Your task to perform on an android device: Go to notification settings Image 0: 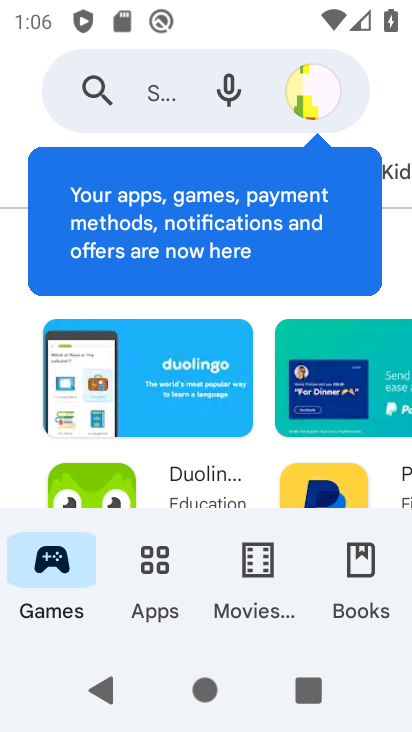
Step 0: press home button
Your task to perform on an android device: Go to notification settings Image 1: 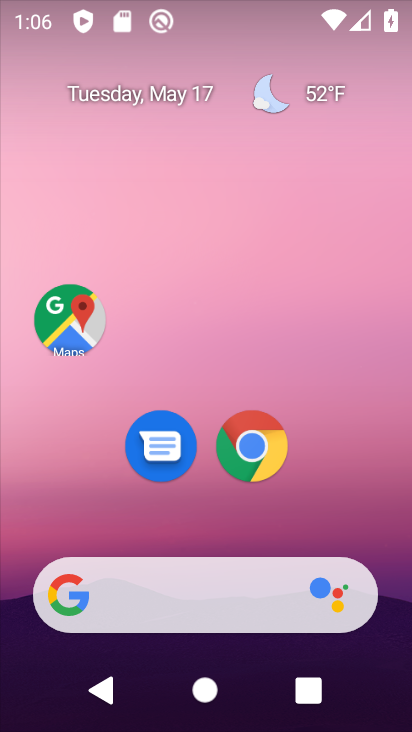
Step 1: drag from (363, 495) to (266, 6)
Your task to perform on an android device: Go to notification settings Image 2: 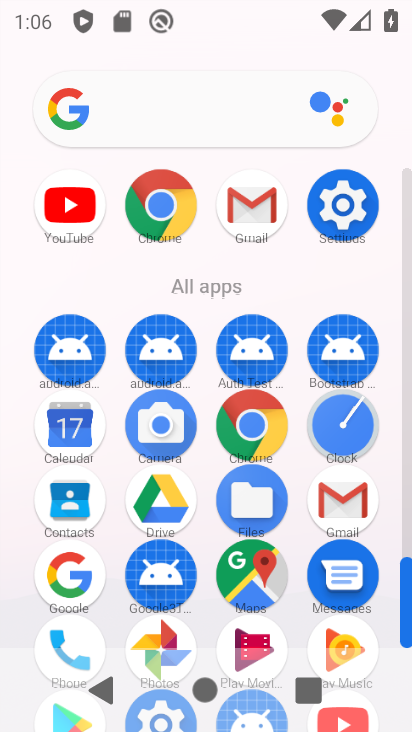
Step 2: click (337, 228)
Your task to perform on an android device: Go to notification settings Image 3: 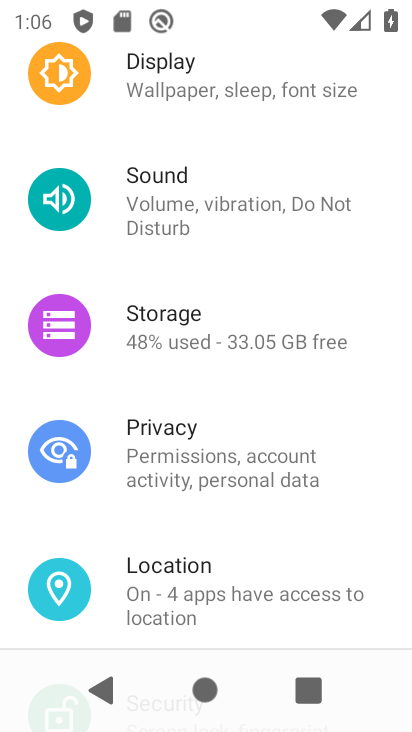
Step 3: drag from (274, 546) to (220, 265)
Your task to perform on an android device: Go to notification settings Image 4: 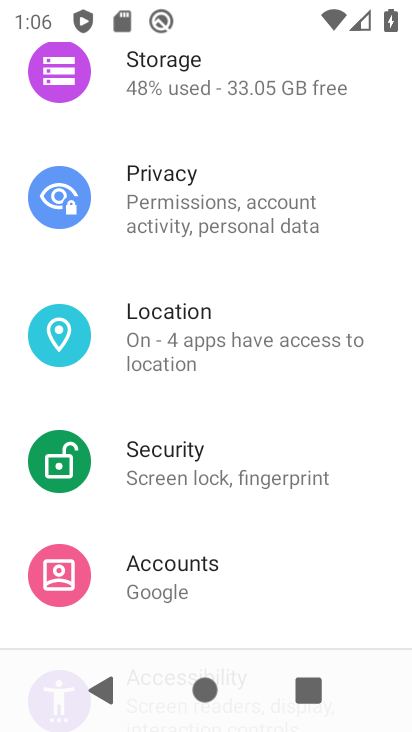
Step 4: drag from (195, 147) to (273, 705)
Your task to perform on an android device: Go to notification settings Image 5: 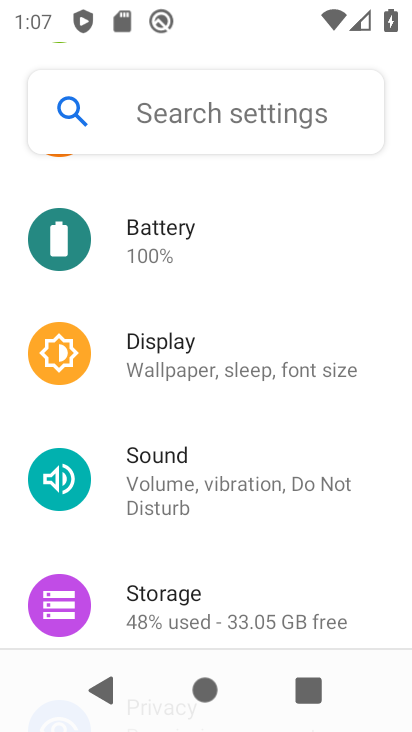
Step 5: drag from (174, 180) to (189, 541)
Your task to perform on an android device: Go to notification settings Image 6: 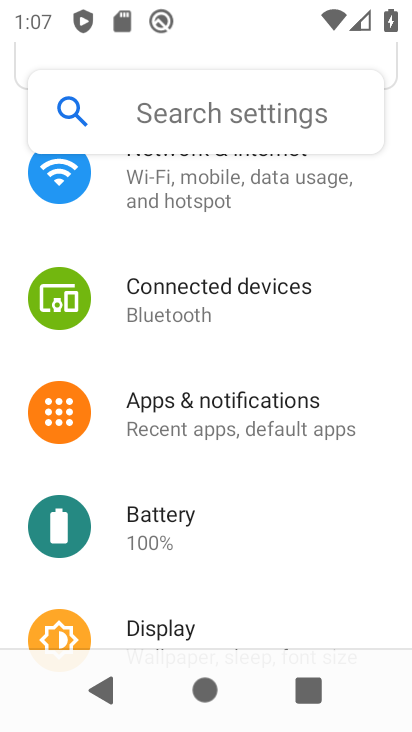
Step 6: click (152, 426)
Your task to perform on an android device: Go to notification settings Image 7: 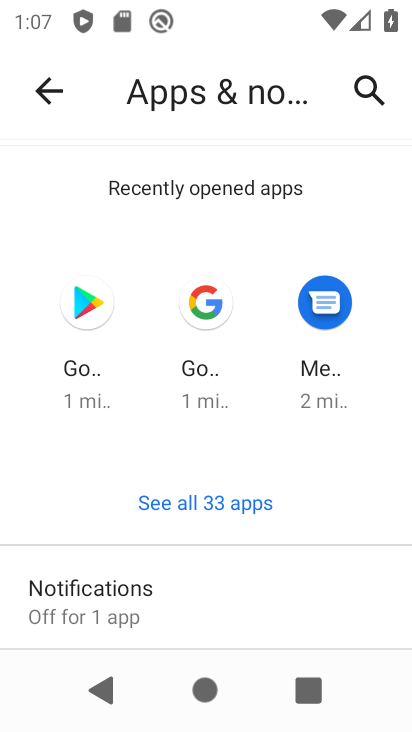
Step 7: click (345, 576)
Your task to perform on an android device: Go to notification settings Image 8: 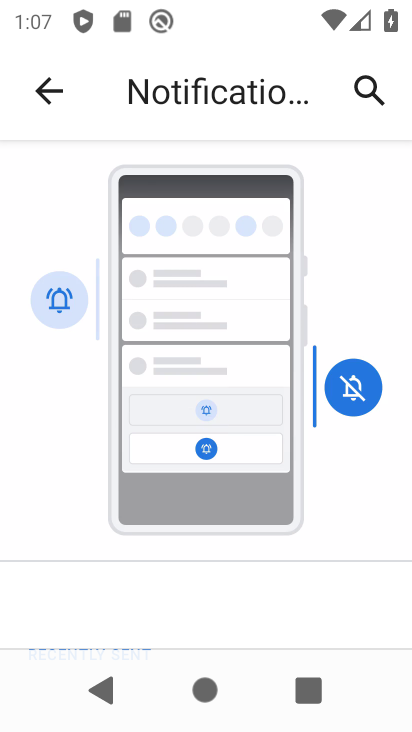
Step 8: task complete